Your task to perform on an android device: snooze an email in the gmail app Image 0: 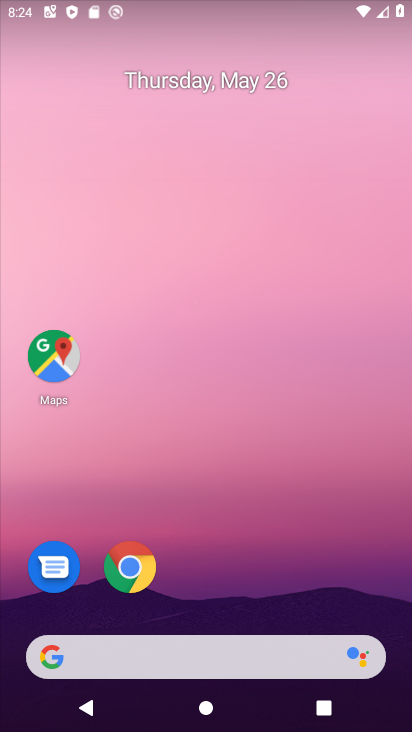
Step 0: drag from (155, 659) to (274, 106)
Your task to perform on an android device: snooze an email in the gmail app Image 1: 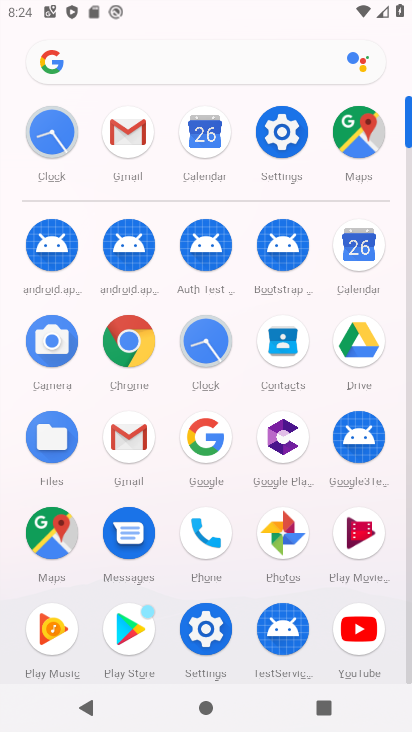
Step 1: click (132, 138)
Your task to perform on an android device: snooze an email in the gmail app Image 2: 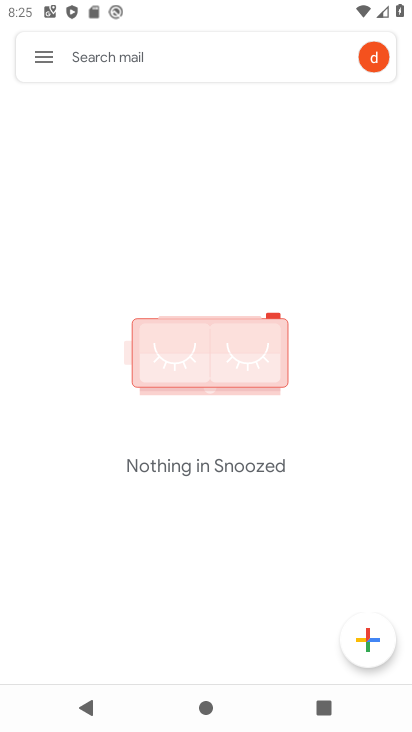
Step 2: click (47, 58)
Your task to perform on an android device: snooze an email in the gmail app Image 3: 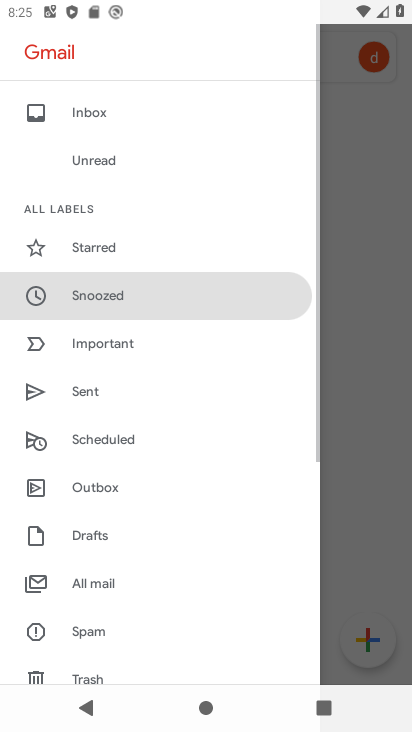
Step 3: drag from (202, 133) to (180, 557)
Your task to perform on an android device: snooze an email in the gmail app Image 4: 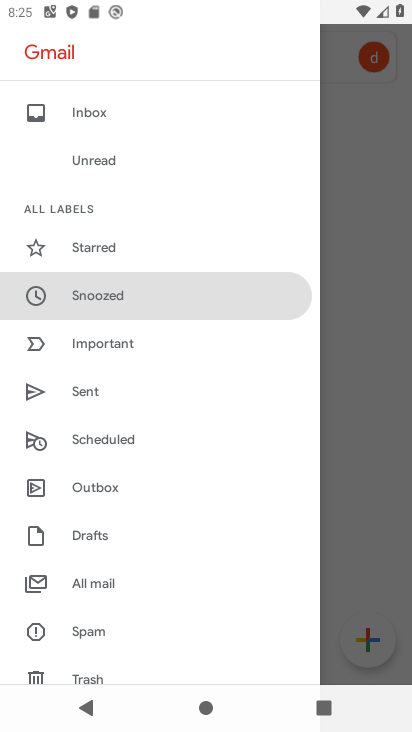
Step 4: drag from (178, 172) to (182, 465)
Your task to perform on an android device: snooze an email in the gmail app Image 5: 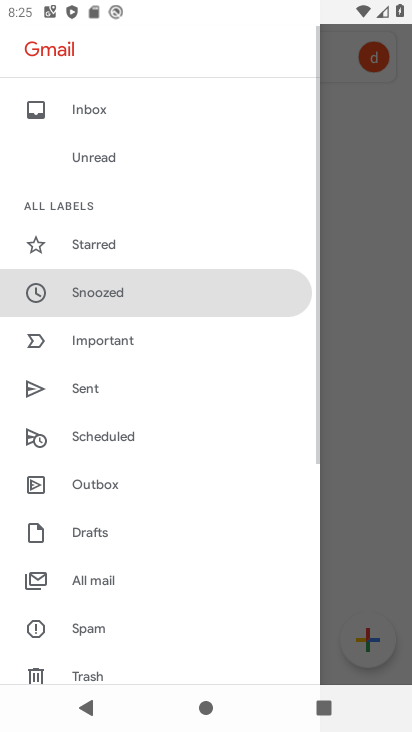
Step 5: click (96, 110)
Your task to perform on an android device: snooze an email in the gmail app Image 6: 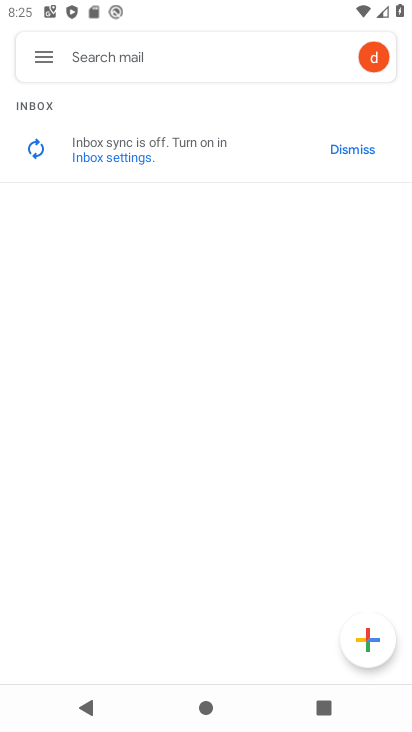
Step 6: task complete